Your task to perform on an android device: turn off translation in the chrome app Image 0: 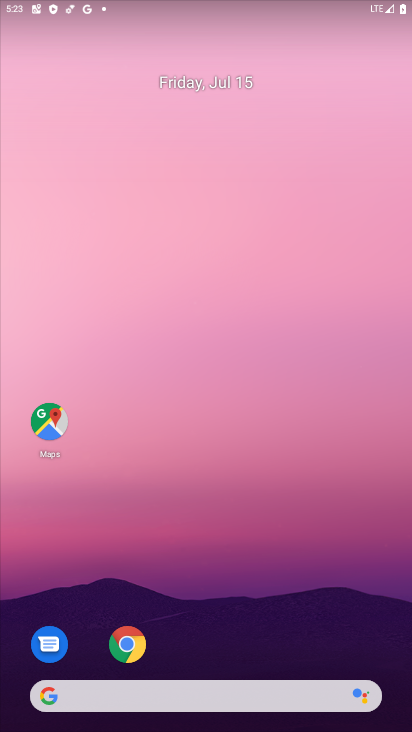
Step 0: click (137, 645)
Your task to perform on an android device: turn off translation in the chrome app Image 1: 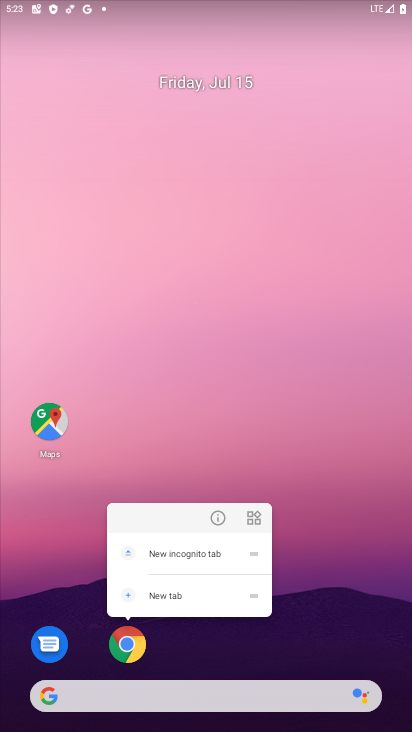
Step 1: click (131, 644)
Your task to perform on an android device: turn off translation in the chrome app Image 2: 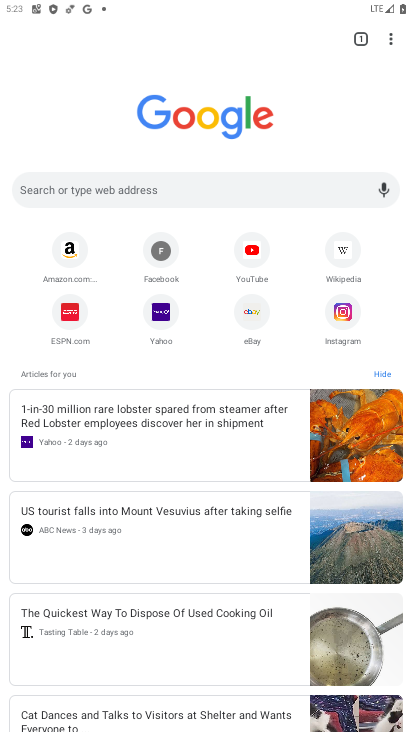
Step 2: click (396, 36)
Your task to perform on an android device: turn off translation in the chrome app Image 3: 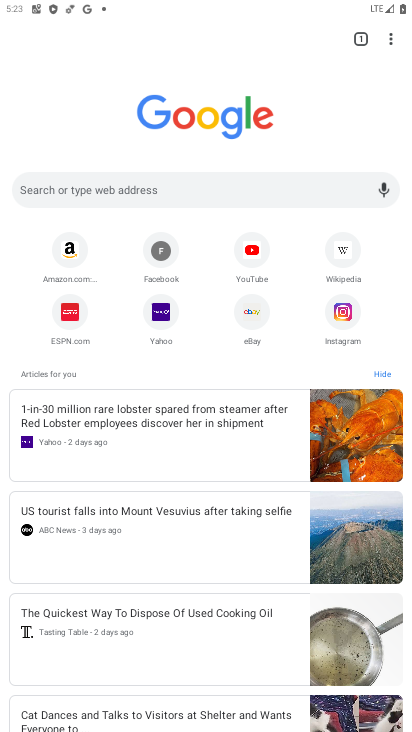
Step 3: click (389, 42)
Your task to perform on an android device: turn off translation in the chrome app Image 4: 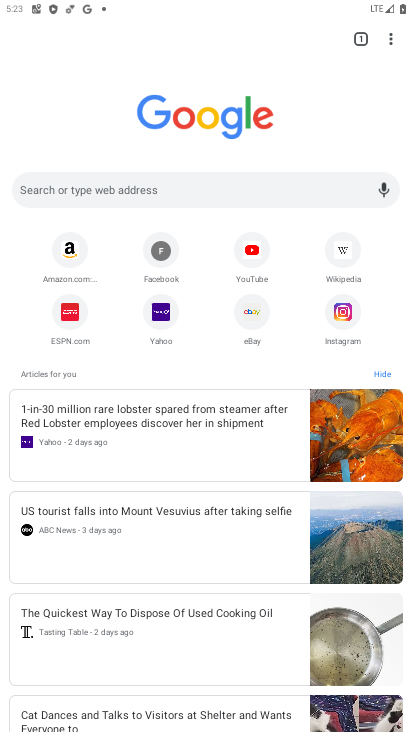
Step 4: click (386, 39)
Your task to perform on an android device: turn off translation in the chrome app Image 5: 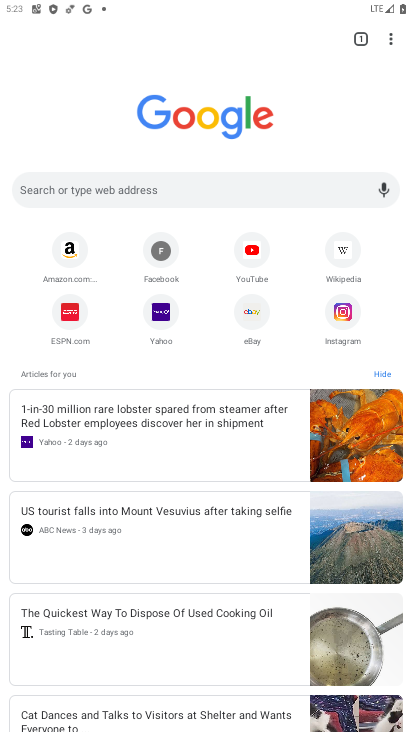
Step 5: click (393, 40)
Your task to perform on an android device: turn off translation in the chrome app Image 6: 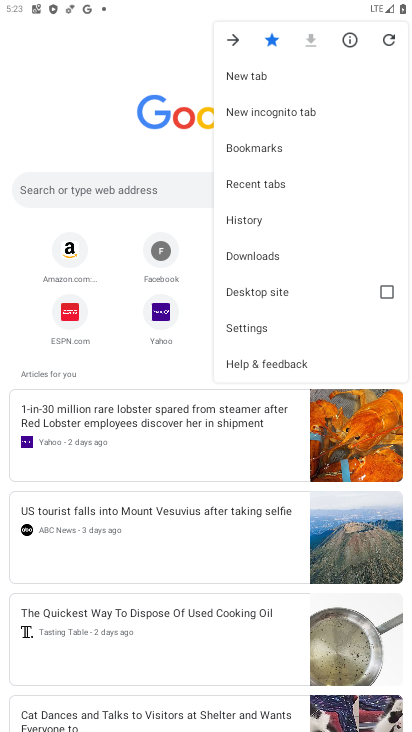
Step 6: click (267, 323)
Your task to perform on an android device: turn off translation in the chrome app Image 7: 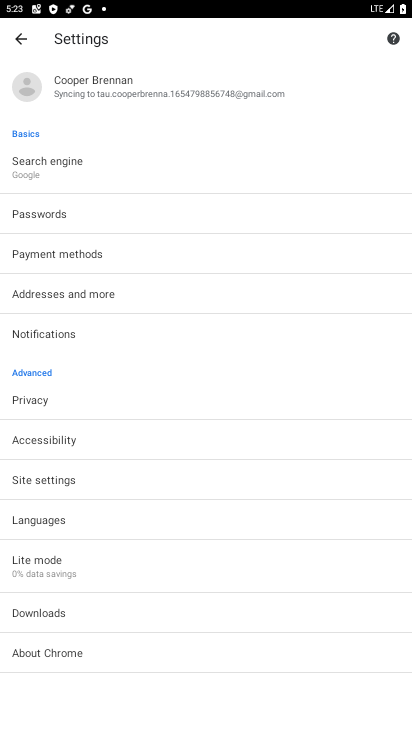
Step 7: click (62, 513)
Your task to perform on an android device: turn off translation in the chrome app Image 8: 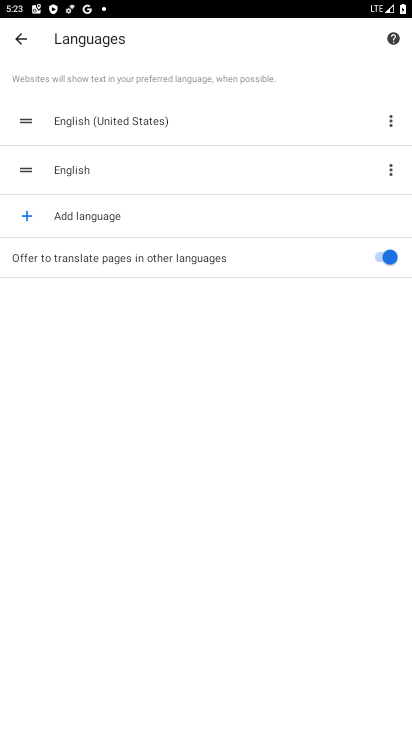
Step 8: click (388, 253)
Your task to perform on an android device: turn off translation in the chrome app Image 9: 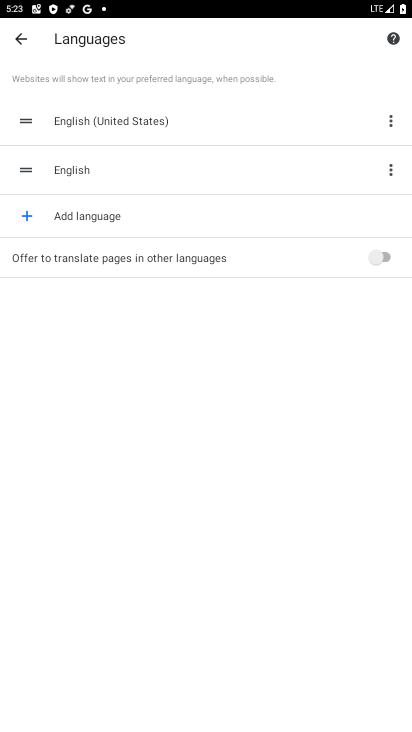
Step 9: task complete